Your task to perform on an android device: all mails in gmail Image 0: 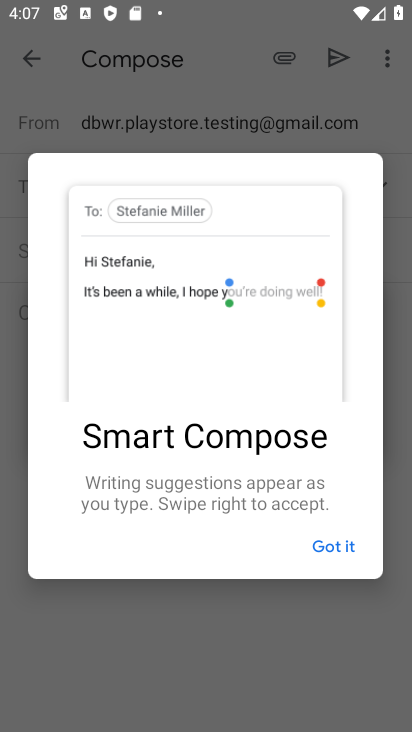
Step 0: press home button
Your task to perform on an android device: all mails in gmail Image 1: 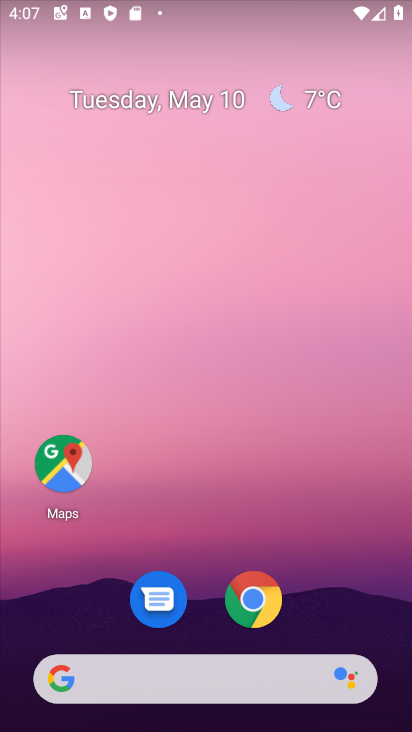
Step 1: drag from (268, 554) to (279, 171)
Your task to perform on an android device: all mails in gmail Image 2: 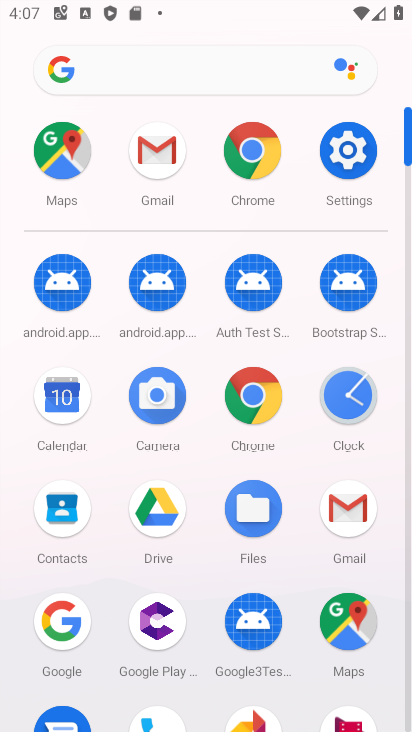
Step 2: click (357, 508)
Your task to perform on an android device: all mails in gmail Image 3: 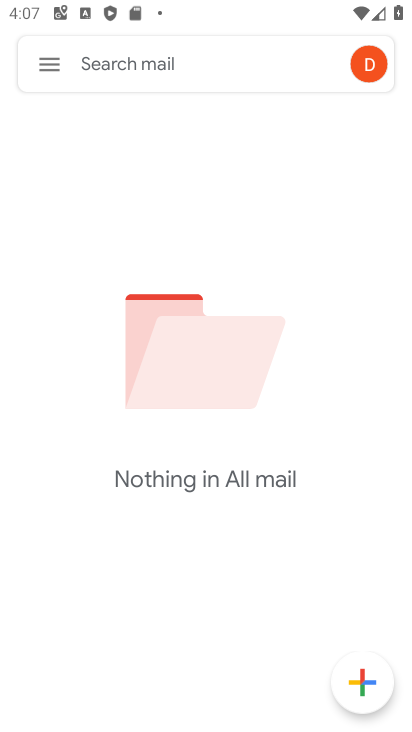
Step 3: task complete